Your task to perform on an android device: turn on priority inbox in the gmail app Image 0: 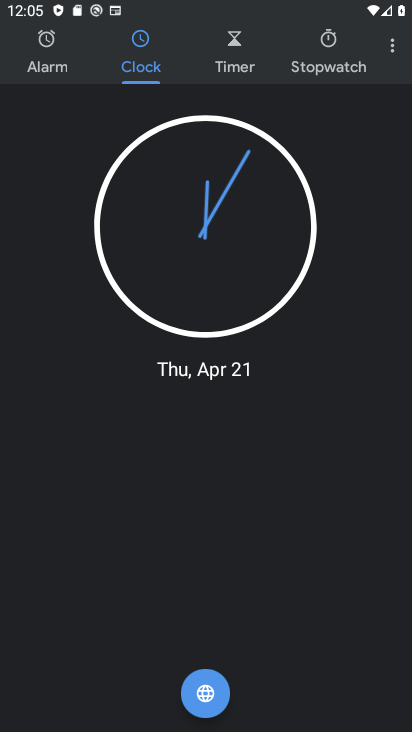
Step 0: press home button
Your task to perform on an android device: turn on priority inbox in the gmail app Image 1: 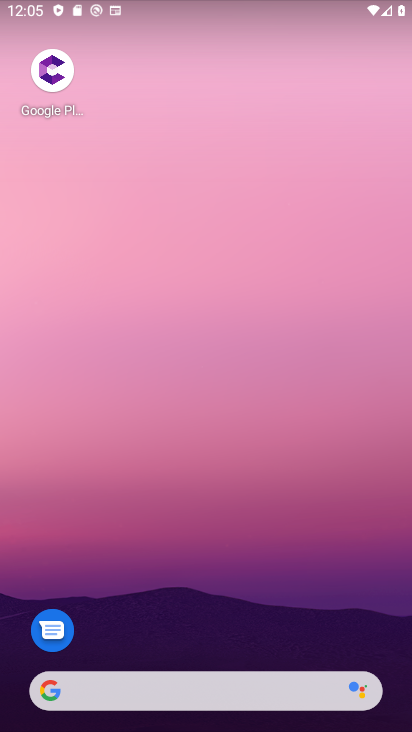
Step 1: drag from (216, 611) to (212, 335)
Your task to perform on an android device: turn on priority inbox in the gmail app Image 2: 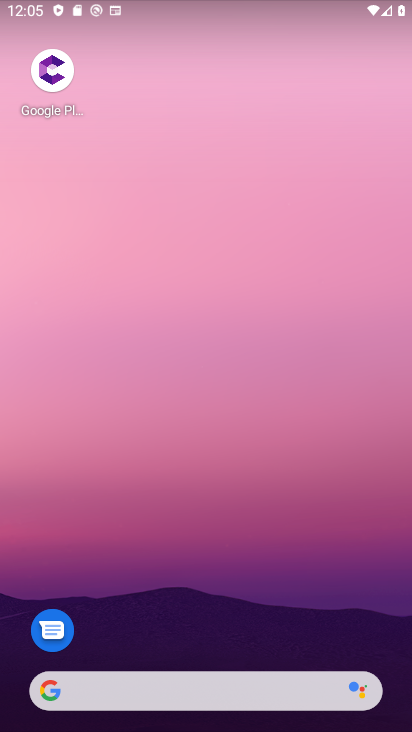
Step 2: drag from (172, 679) to (165, 318)
Your task to perform on an android device: turn on priority inbox in the gmail app Image 3: 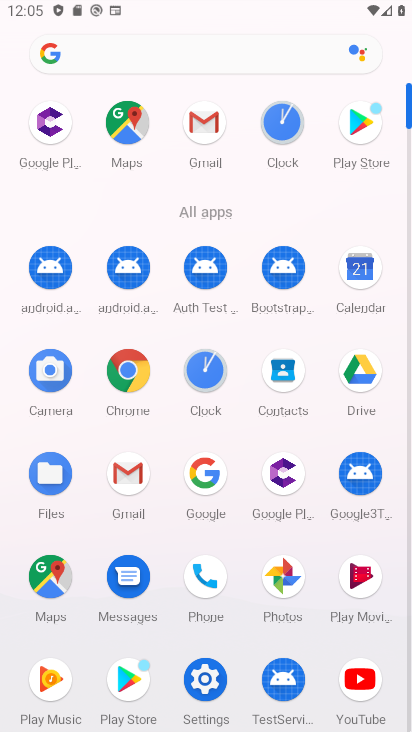
Step 3: click (201, 127)
Your task to perform on an android device: turn on priority inbox in the gmail app Image 4: 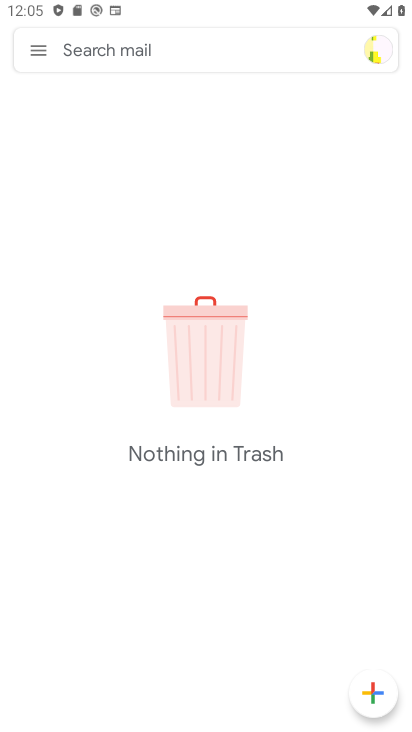
Step 4: click (47, 44)
Your task to perform on an android device: turn on priority inbox in the gmail app Image 5: 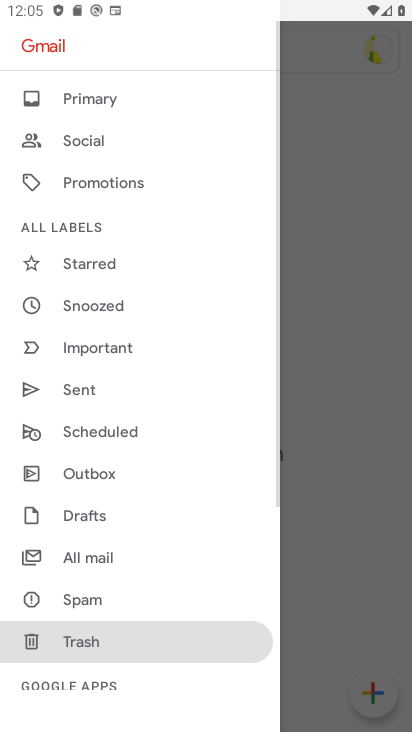
Step 5: drag from (121, 672) to (127, 414)
Your task to perform on an android device: turn on priority inbox in the gmail app Image 6: 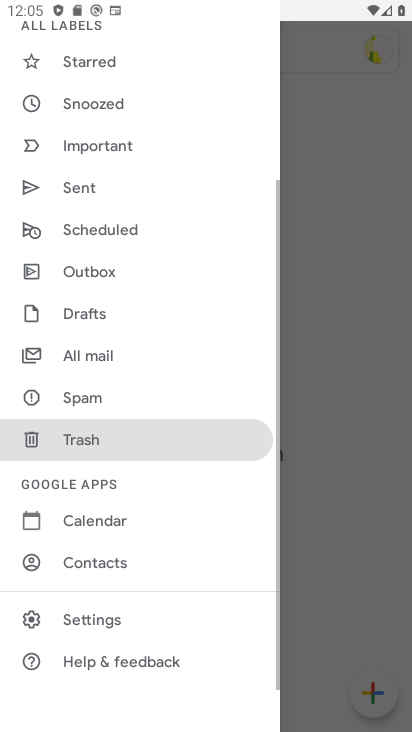
Step 6: click (93, 622)
Your task to perform on an android device: turn on priority inbox in the gmail app Image 7: 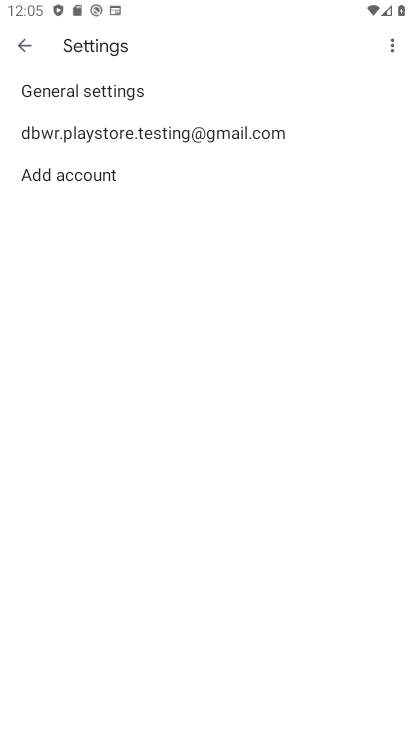
Step 7: click (102, 121)
Your task to perform on an android device: turn on priority inbox in the gmail app Image 8: 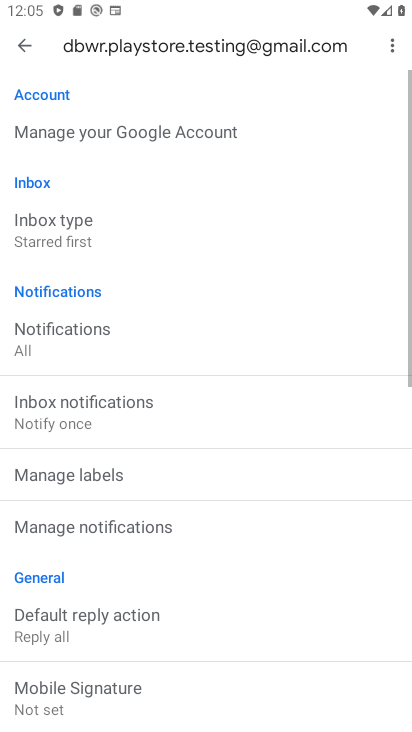
Step 8: click (42, 235)
Your task to perform on an android device: turn on priority inbox in the gmail app Image 9: 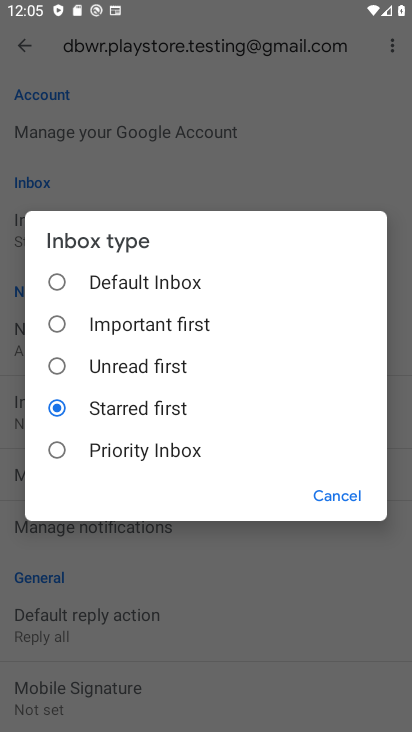
Step 9: click (82, 454)
Your task to perform on an android device: turn on priority inbox in the gmail app Image 10: 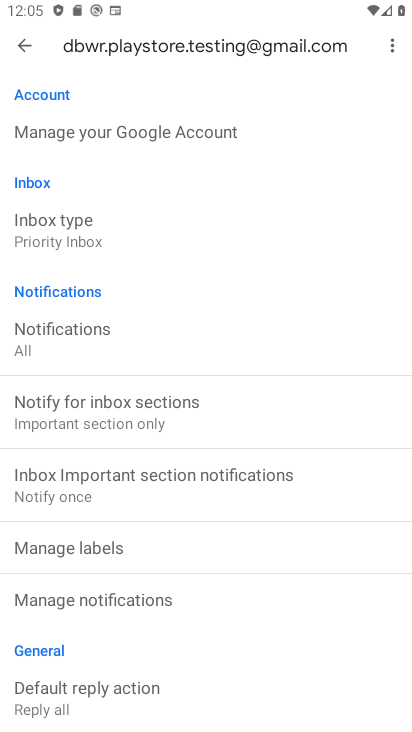
Step 10: task complete